Your task to perform on an android device: turn on the 12-hour format for clock Image 0: 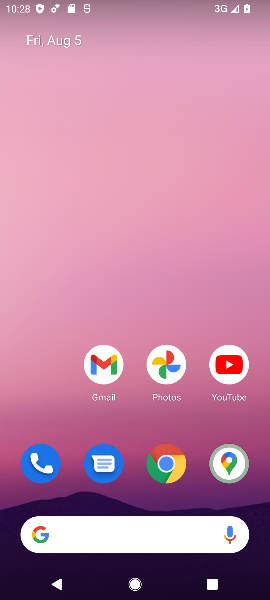
Step 0: drag from (100, 517) to (119, 125)
Your task to perform on an android device: turn on the 12-hour format for clock Image 1: 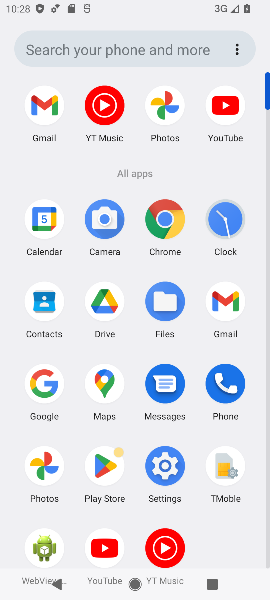
Step 1: click (233, 209)
Your task to perform on an android device: turn on the 12-hour format for clock Image 2: 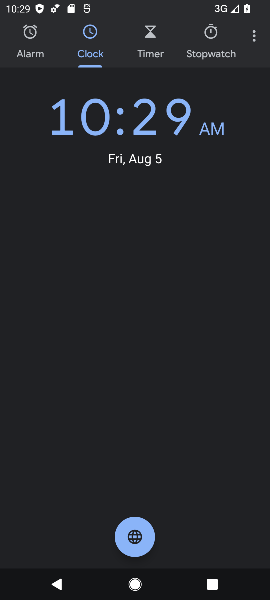
Step 2: click (254, 43)
Your task to perform on an android device: turn on the 12-hour format for clock Image 3: 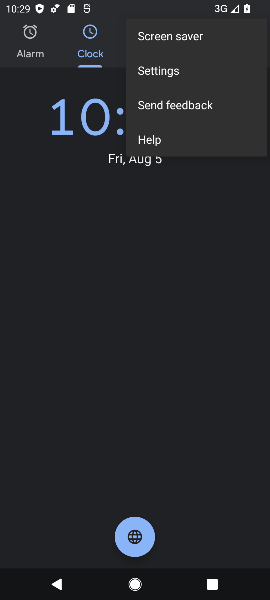
Step 3: click (172, 71)
Your task to perform on an android device: turn on the 12-hour format for clock Image 4: 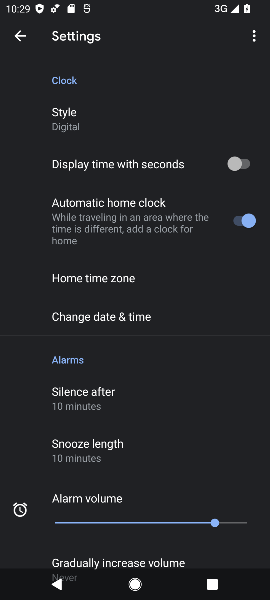
Step 4: click (109, 318)
Your task to perform on an android device: turn on the 12-hour format for clock Image 5: 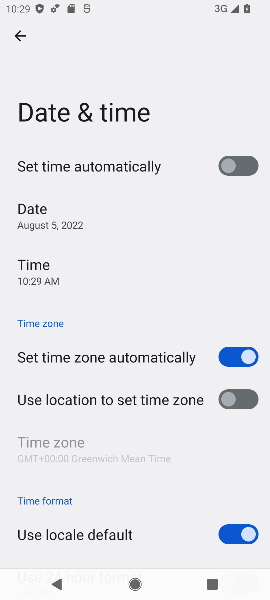
Step 5: drag from (80, 540) to (117, 216)
Your task to perform on an android device: turn on the 12-hour format for clock Image 6: 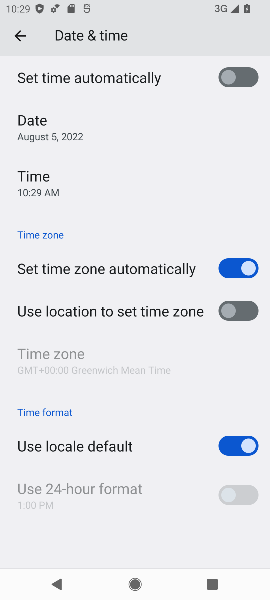
Step 6: click (226, 443)
Your task to perform on an android device: turn on the 12-hour format for clock Image 7: 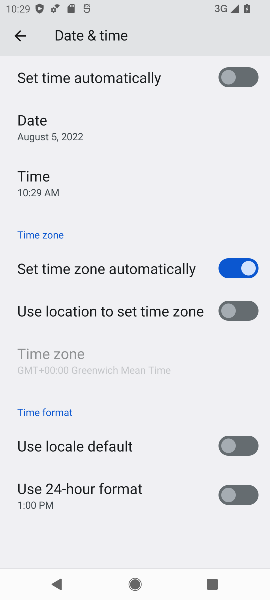
Step 7: click (232, 490)
Your task to perform on an android device: turn on the 12-hour format for clock Image 8: 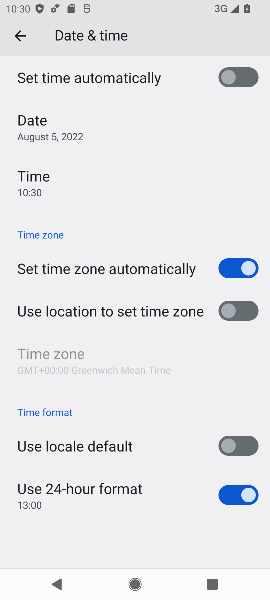
Step 8: task complete